Your task to perform on an android device: toggle notification dots Image 0: 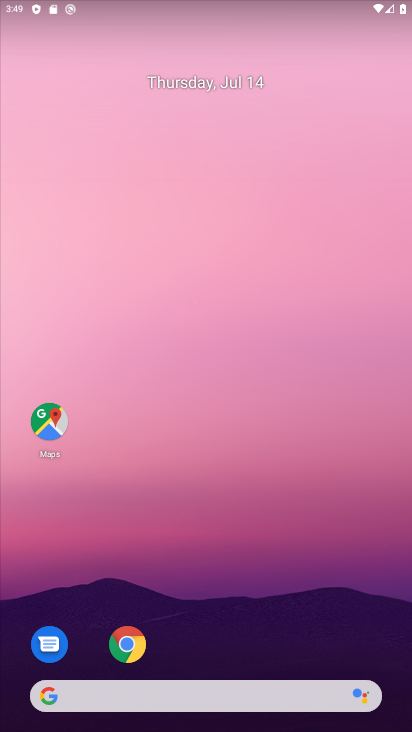
Step 0: press home button
Your task to perform on an android device: toggle notification dots Image 1: 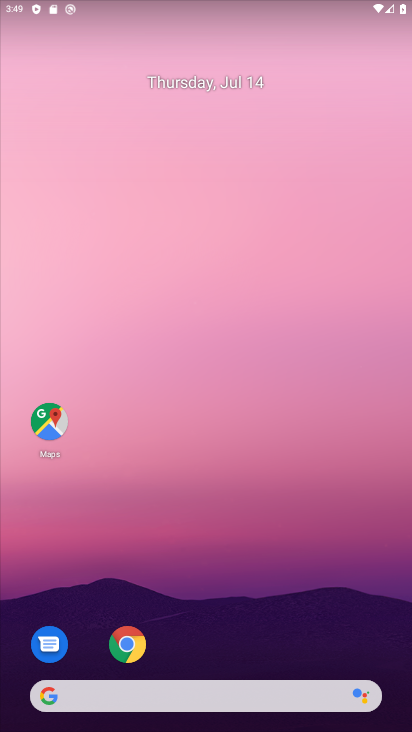
Step 1: drag from (215, 620) to (210, 261)
Your task to perform on an android device: toggle notification dots Image 2: 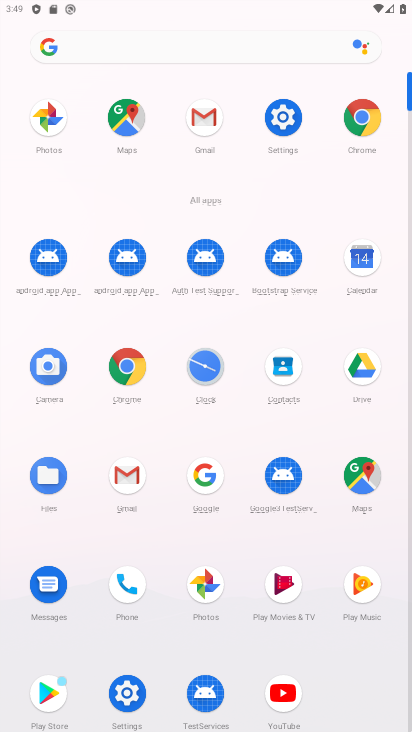
Step 2: click (121, 676)
Your task to perform on an android device: toggle notification dots Image 3: 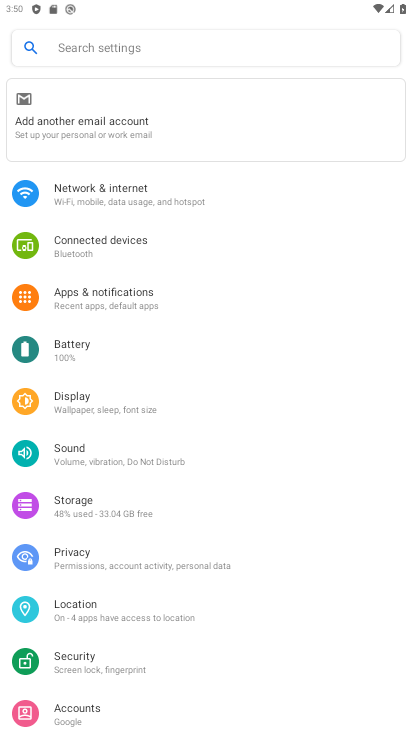
Step 3: click (128, 297)
Your task to perform on an android device: toggle notification dots Image 4: 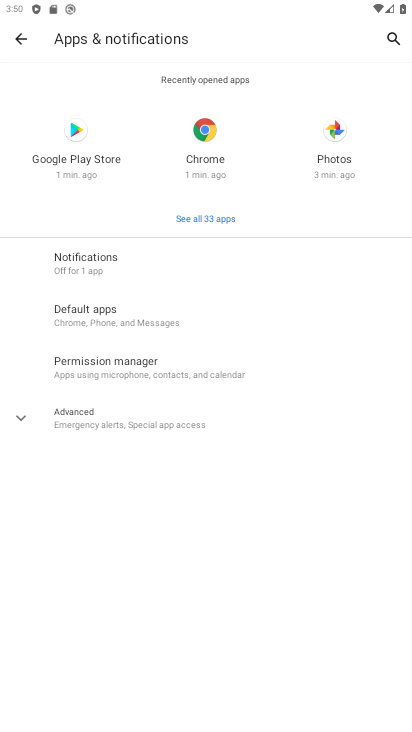
Step 4: click (85, 415)
Your task to perform on an android device: toggle notification dots Image 5: 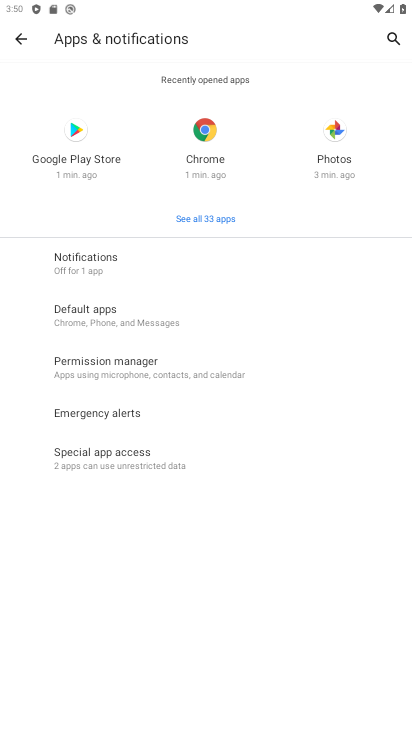
Step 5: click (89, 272)
Your task to perform on an android device: toggle notification dots Image 6: 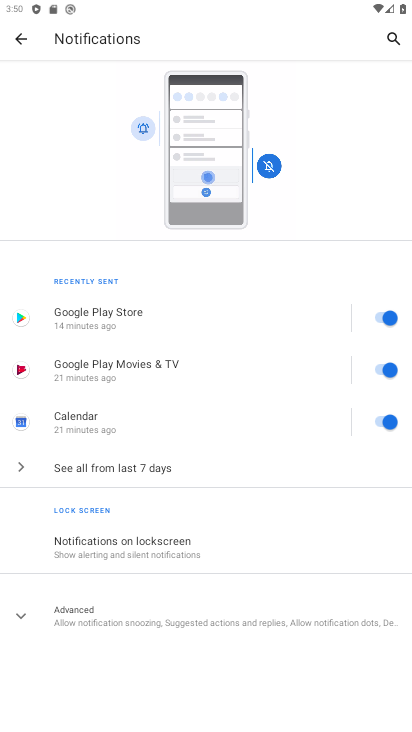
Step 6: click (100, 633)
Your task to perform on an android device: toggle notification dots Image 7: 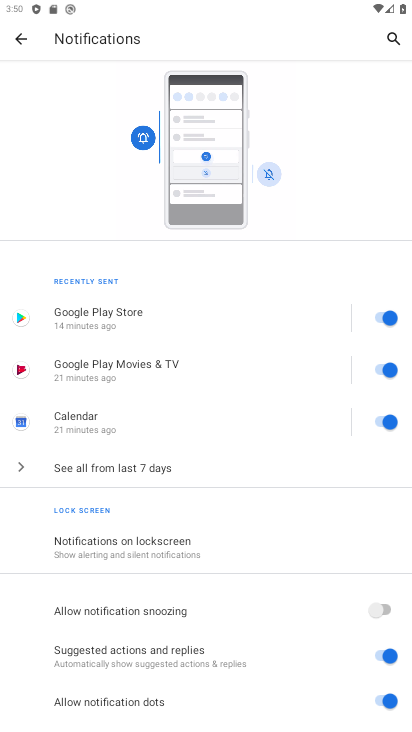
Step 7: click (123, 705)
Your task to perform on an android device: toggle notification dots Image 8: 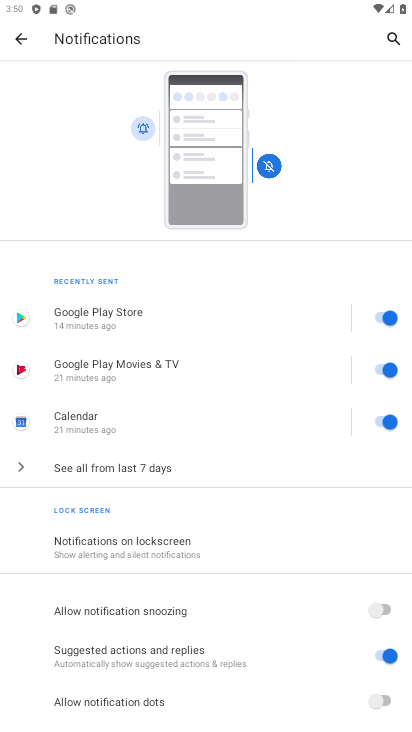
Step 8: task complete